Your task to perform on an android device: Open Google Chrome and click the shortcut for Amazon.com Image 0: 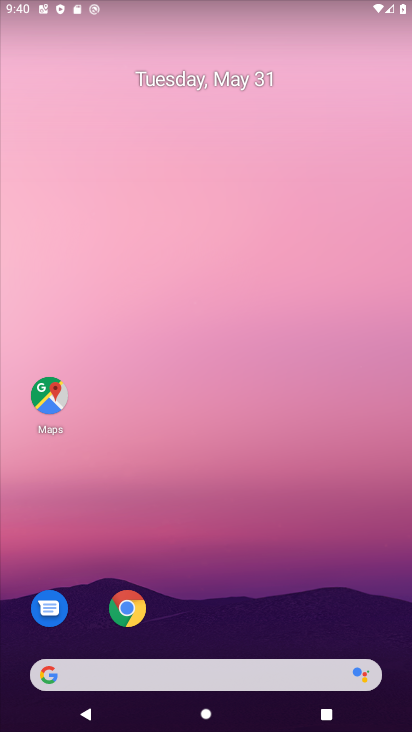
Step 0: drag from (198, 650) to (119, 111)
Your task to perform on an android device: Open Google Chrome and click the shortcut for Amazon.com Image 1: 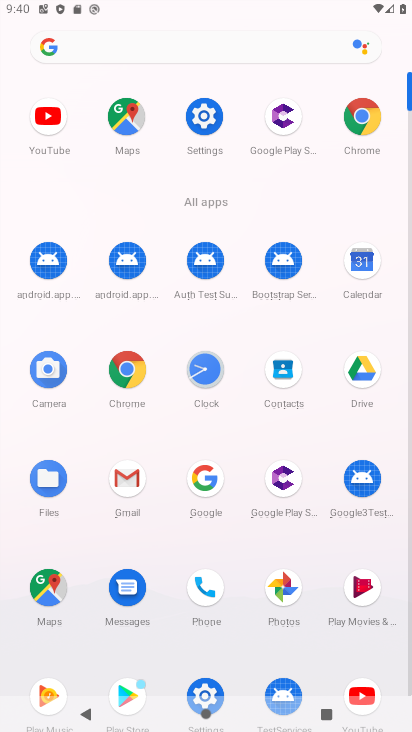
Step 1: click (122, 377)
Your task to perform on an android device: Open Google Chrome and click the shortcut for Amazon.com Image 2: 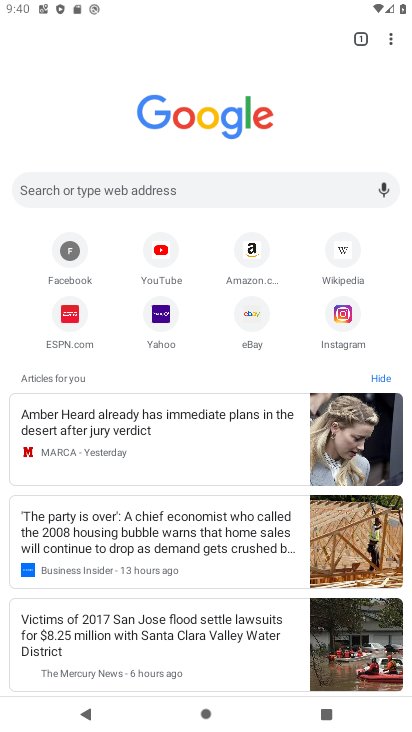
Step 2: click (393, 42)
Your task to perform on an android device: Open Google Chrome and click the shortcut for Amazon.com Image 3: 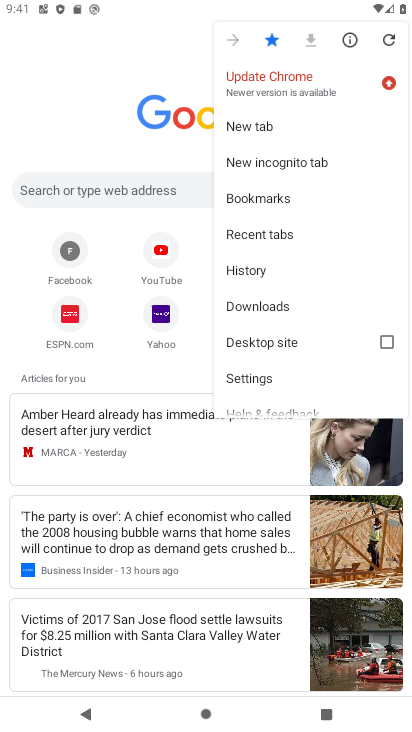
Step 3: click (69, 125)
Your task to perform on an android device: Open Google Chrome and click the shortcut for Amazon.com Image 4: 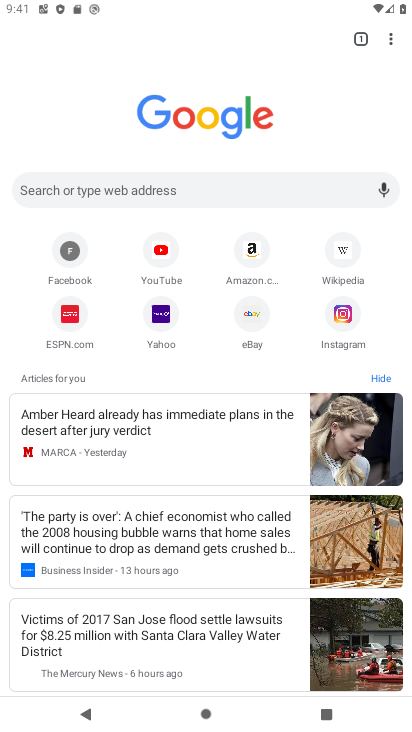
Step 4: click (240, 242)
Your task to perform on an android device: Open Google Chrome and click the shortcut for Amazon.com Image 5: 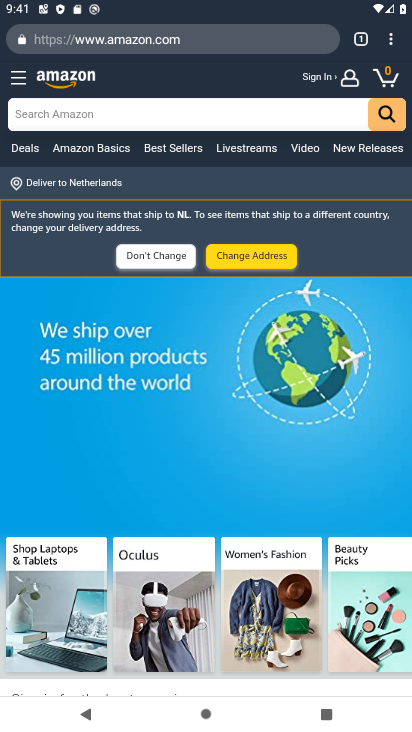
Step 5: task complete